Your task to perform on an android device: find snoozed emails in the gmail app Image 0: 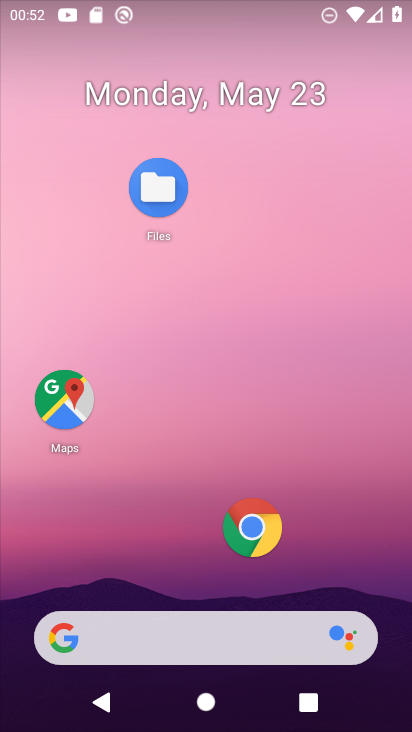
Step 0: drag from (326, 541) to (299, 116)
Your task to perform on an android device: find snoozed emails in the gmail app Image 1: 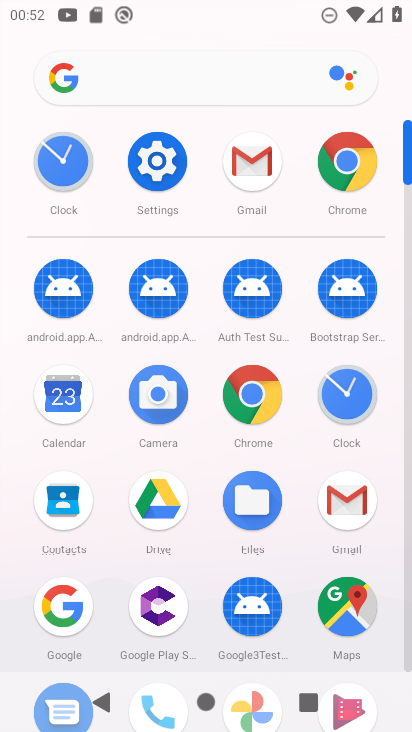
Step 1: click (235, 155)
Your task to perform on an android device: find snoozed emails in the gmail app Image 2: 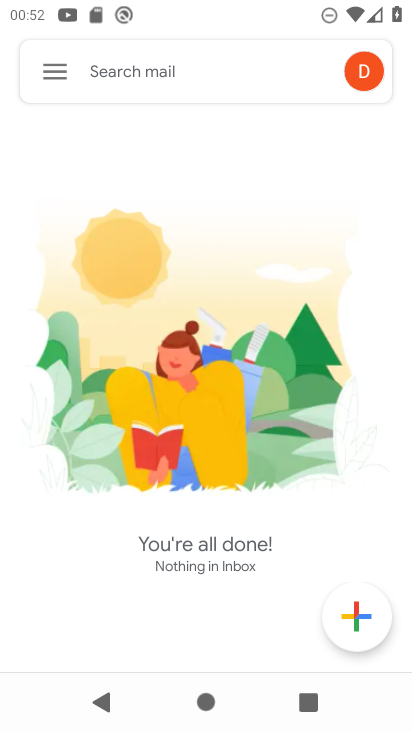
Step 2: click (54, 69)
Your task to perform on an android device: find snoozed emails in the gmail app Image 3: 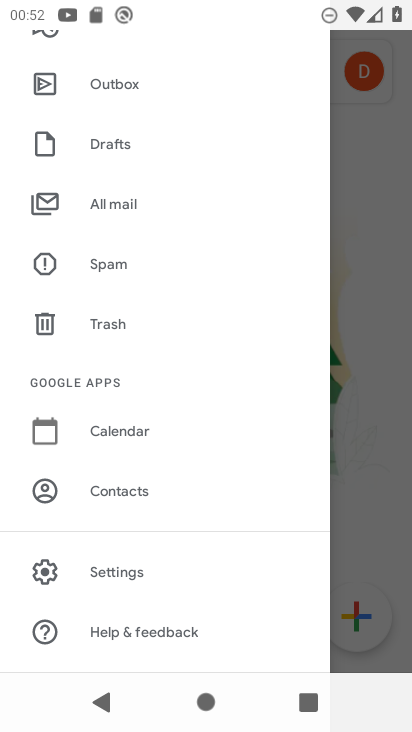
Step 3: drag from (166, 193) to (283, 727)
Your task to perform on an android device: find snoozed emails in the gmail app Image 4: 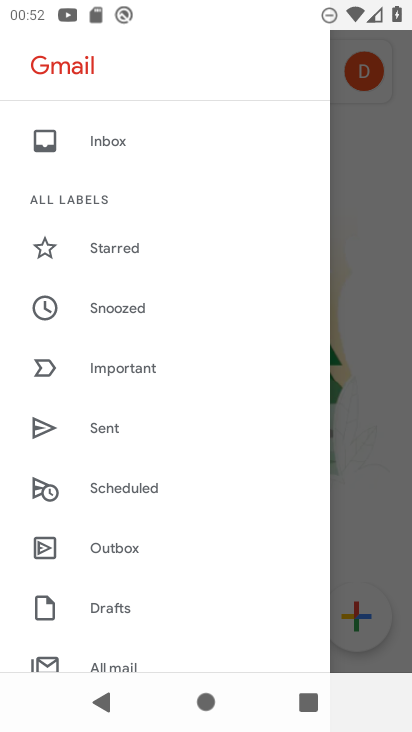
Step 4: click (139, 303)
Your task to perform on an android device: find snoozed emails in the gmail app Image 5: 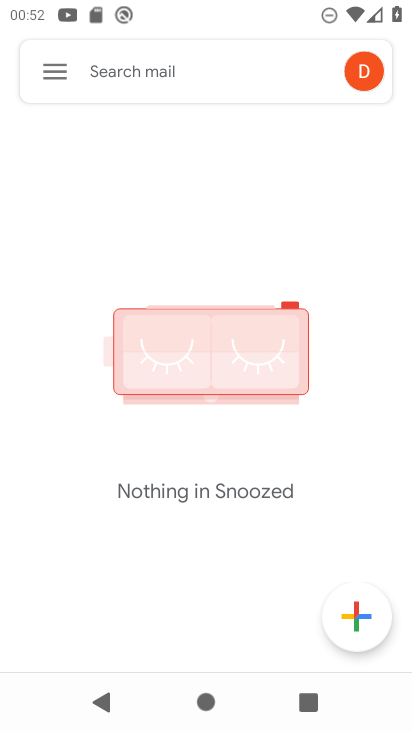
Step 5: task complete